Your task to perform on an android device: manage bookmarks in the chrome app Image 0: 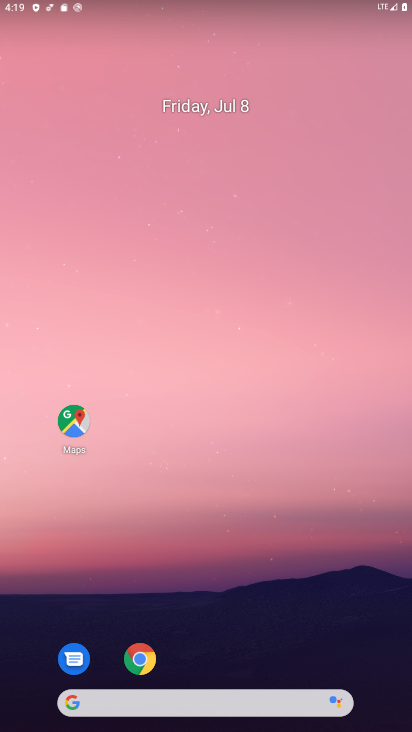
Step 0: drag from (348, 696) to (332, 666)
Your task to perform on an android device: manage bookmarks in the chrome app Image 1: 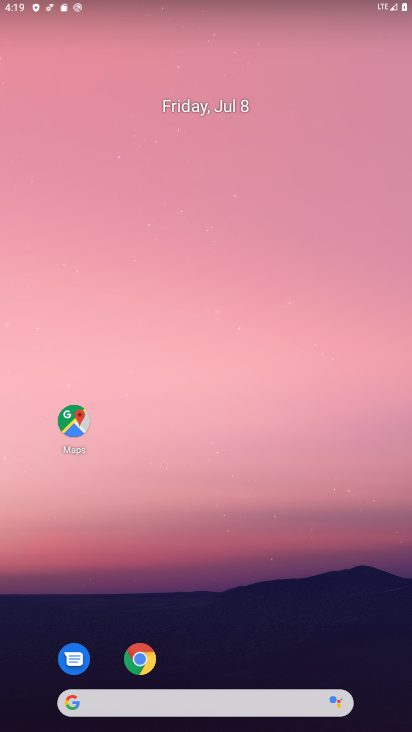
Step 1: click (151, 655)
Your task to perform on an android device: manage bookmarks in the chrome app Image 2: 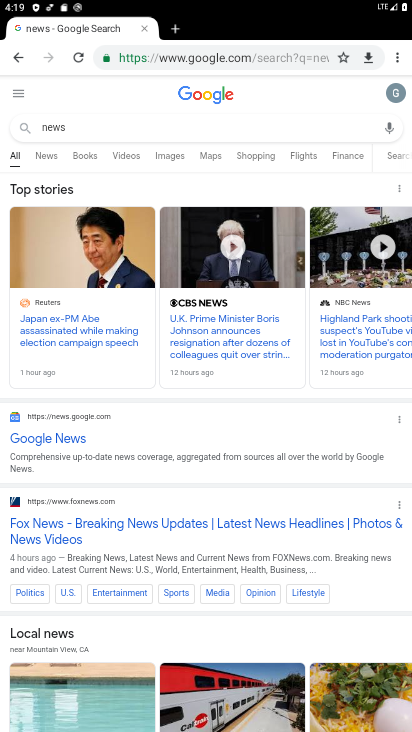
Step 2: drag from (390, 54) to (294, 104)
Your task to perform on an android device: manage bookmarks in the chrome app Image 3: 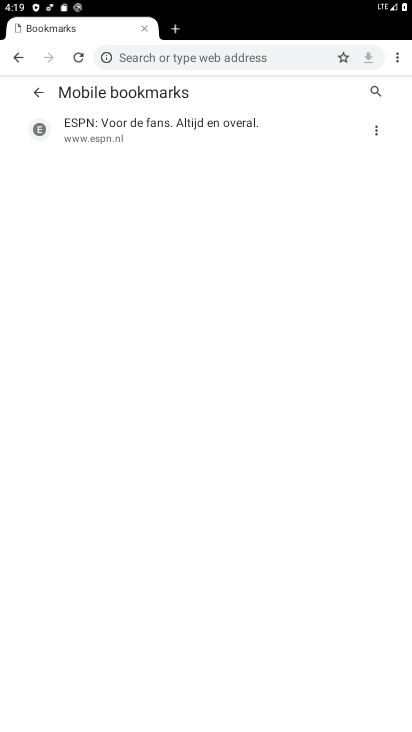
Step 3: click (199, 117)
Your task to perform on an android device: manage bookmarks in the chrome app Image 4: 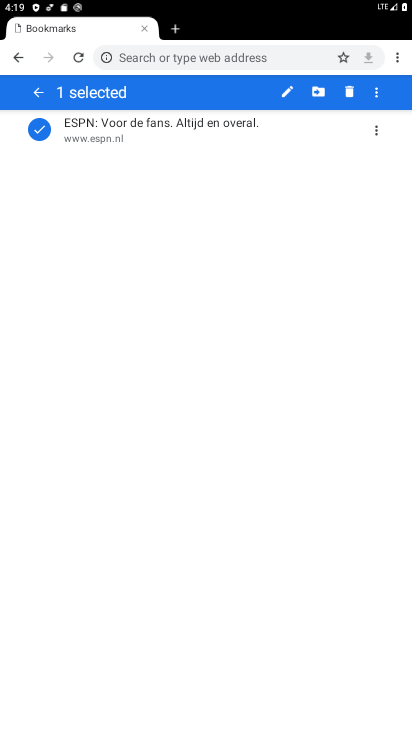
Step 4: click (346, 95)
Your task to perform on an android device: manage bookmarks in the chrome app Image 5: 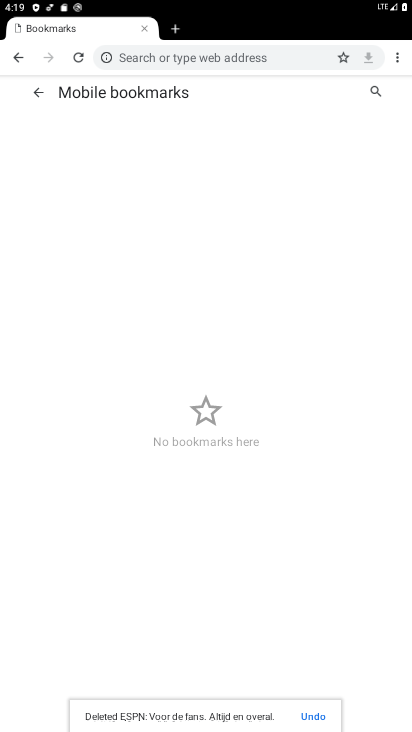
Step 5: task complete